Your task to perform on an android device: Show me popular games on the Play Store Image 0: 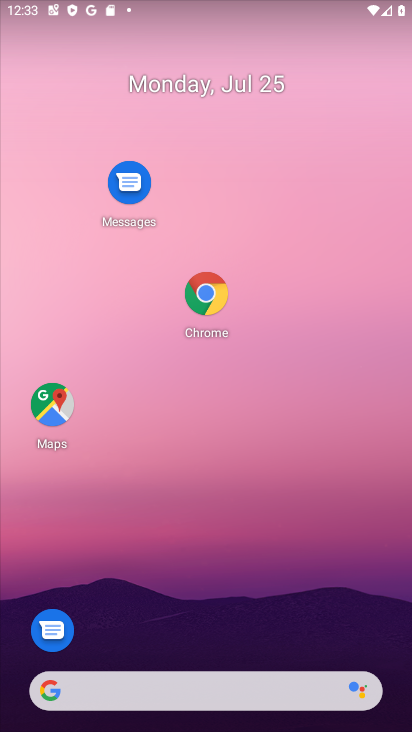
Step 0: drag from (310, 605) to (342, 0)
Your task to perform on an android device: Show me popular games on the Play Store Image 1: 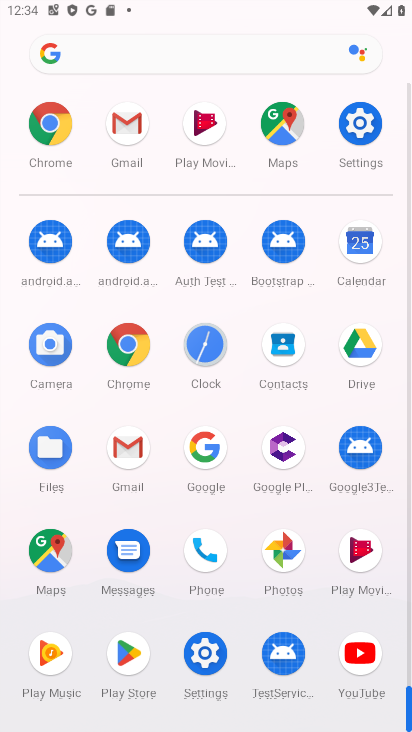
Step 1: click (127, 653)
Your task to perform on an android device: Show me popular games on the Play Store Image 2: 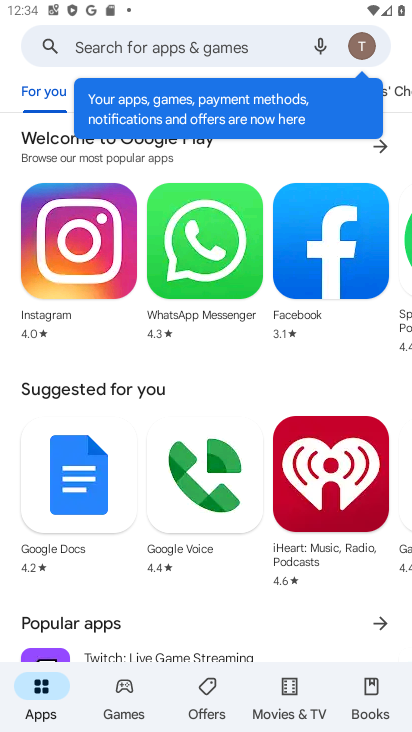
Step 2: click (143, 47)
Your task to perform on an android device: Show me popular games on the Play Store Image 3: 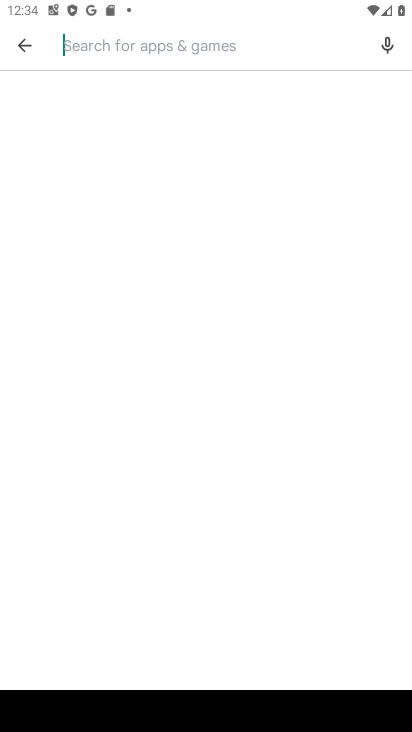
Step 3: type " popular games "
Your task to perform on an android device: Show me popular games on the Play Store Image 4: 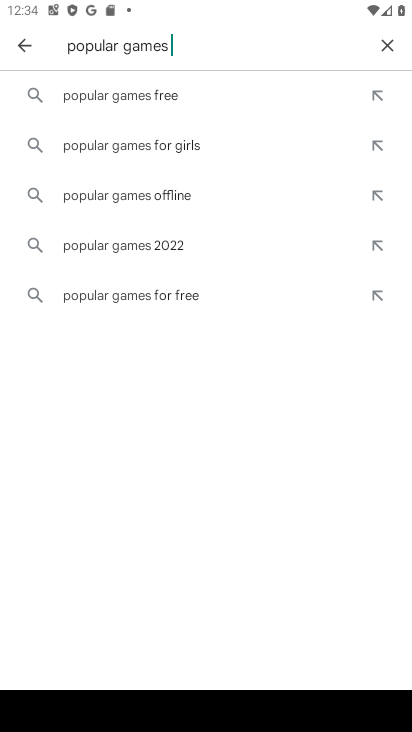
Step 4: click (136, 104)
Your task to perform on an android device: Show me popular games on the Play Store Image 5: 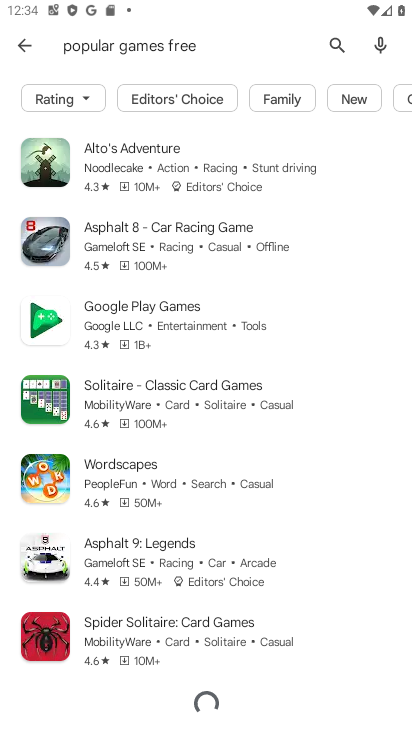
Step 5: task complete